Your task to perform on an android device: Open Reddit.com Image 0: 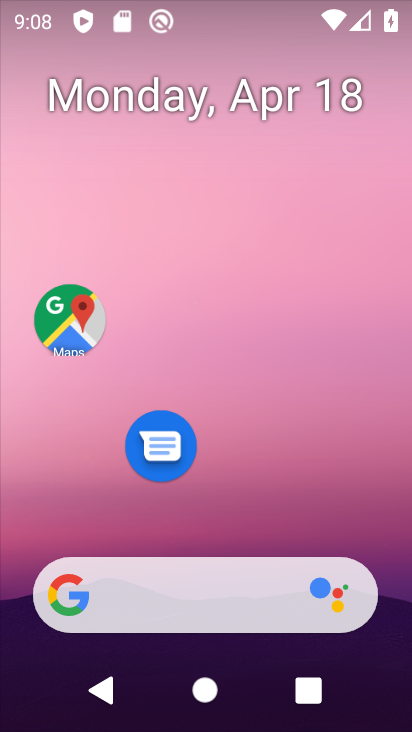
Step 0: drag from (226, 520) to (257, 100)
Your task to perform on an android device: Open Reddit.com Image 1: 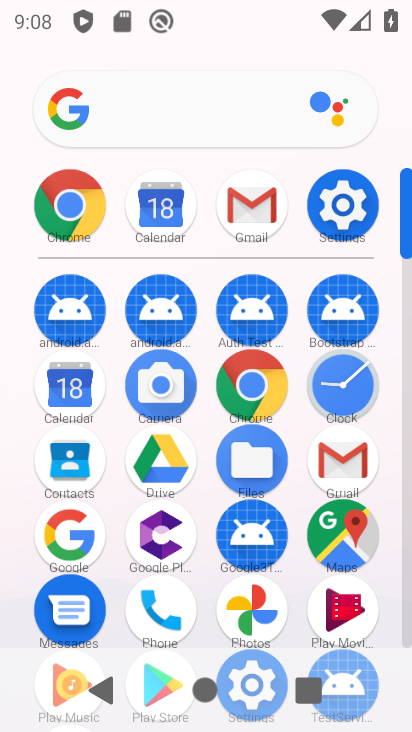
Step 1: click (247, 378)
Your task to perform on an android device: Open Reddit.com Image 2: 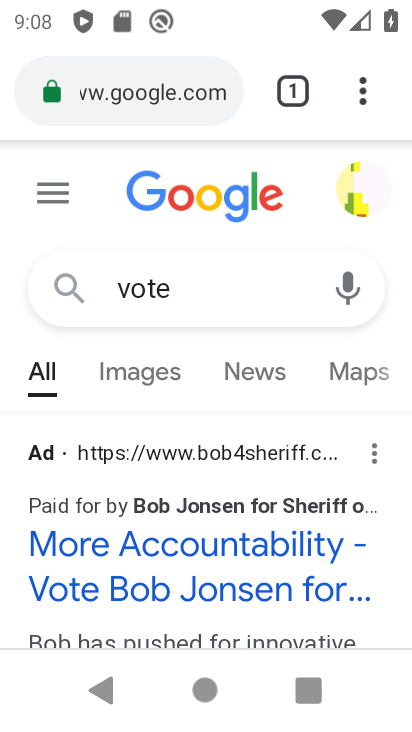
Step 2: press back button
Your task to perform on an android device: Open Reddit.com Image 3: 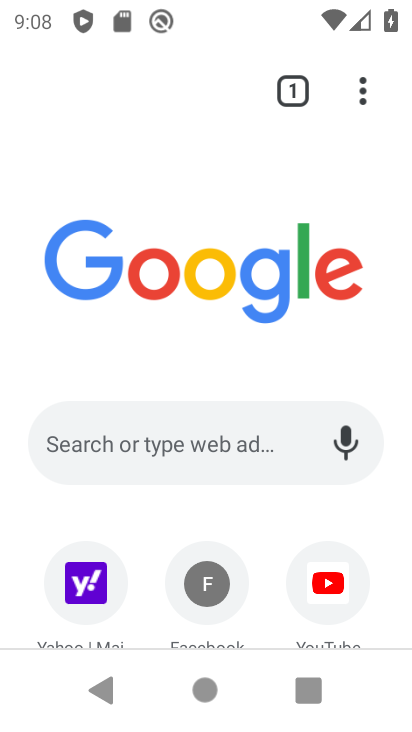
Step 3: drag from (179, 514) to (179, 404)
Your task to perform on an android device: Open Reddit.com Image 4: 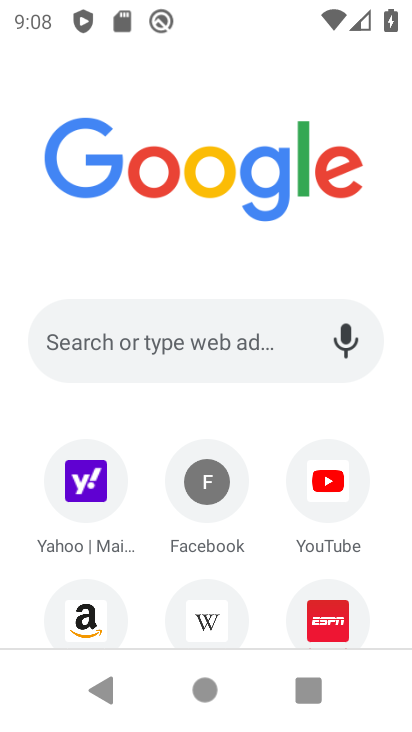
Step 4: click (147, 347)
Your task to perform on an android device: Open Reddit.com Image 5: 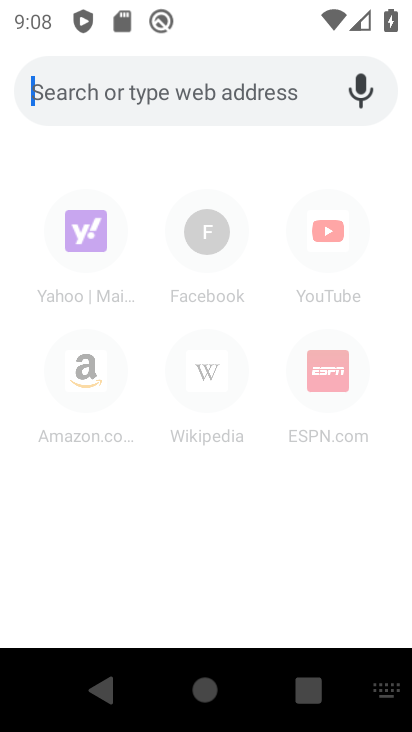
Step 5: type "reddit.com"
Your task to perform on an android device: Open Reddit.com Image 6: 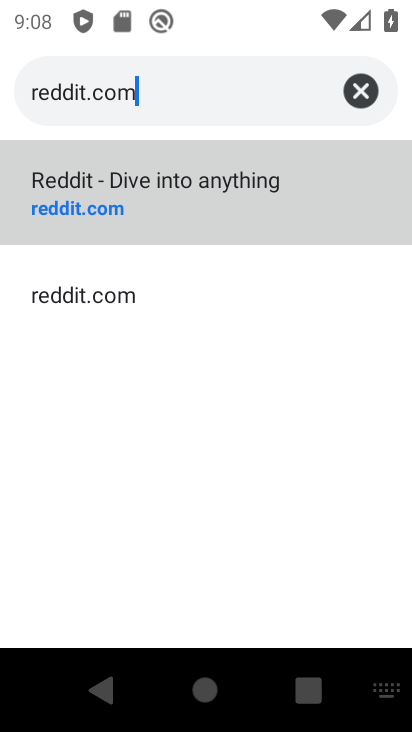
Step 6: click (71, 197)
Your task to perform on an android device: Open Reddit.com Image 7: 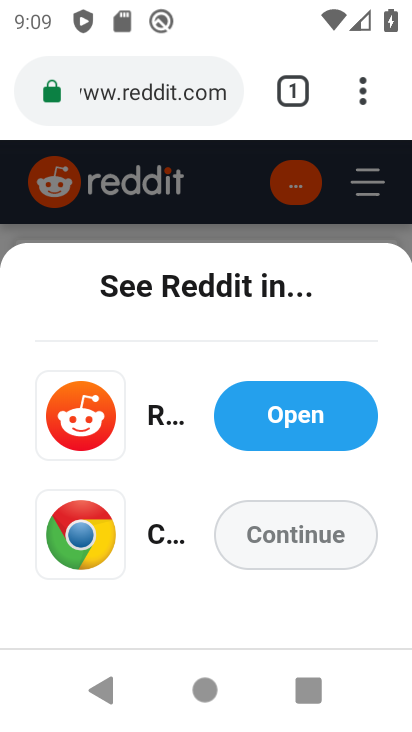
Step 7: click (300, 527)
Your task to perform on an android device: Open Reddit.com Image 8: 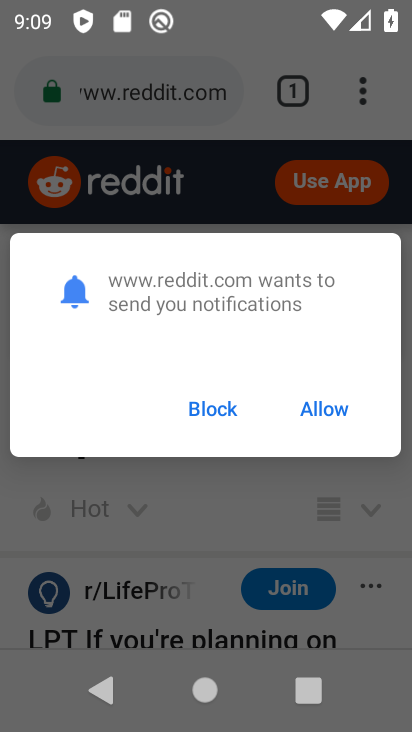
Step 8: click (247, 423)
Your task to perform on an android device: Open Reddit.com Image 9: 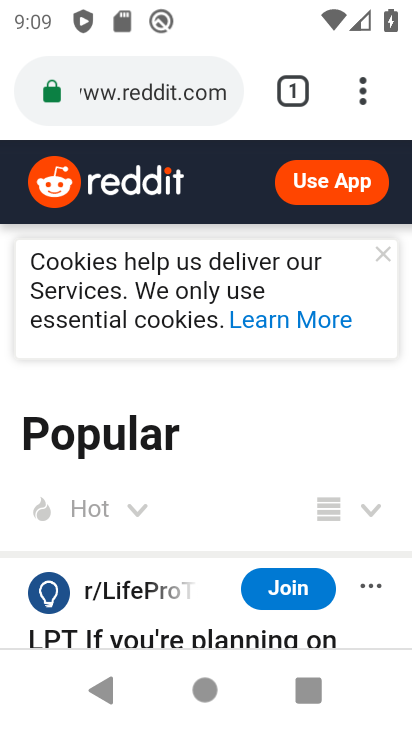
Step 9: task complete